Your task to perform on an android device: see sites visited before in the chrome app Image 0: 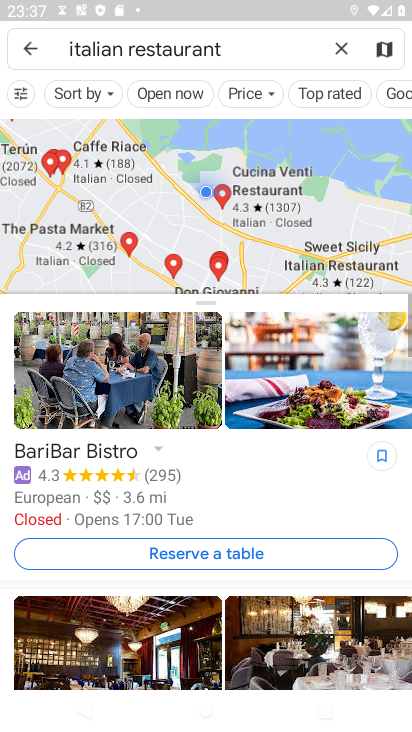
Step 0: press home button
Your task to perform on an android device: see sites visited before in the chrome app Image 1: 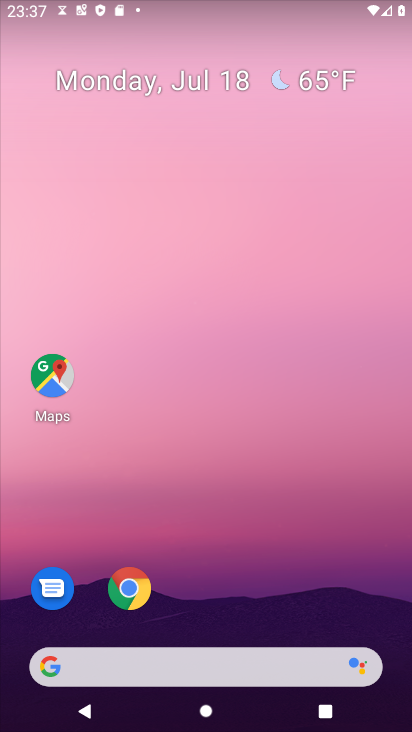
Step 1: drag from (314, 593) to (258, 77)
Your task to perform on an android device: see sites visited before in the chrome app Image 2: 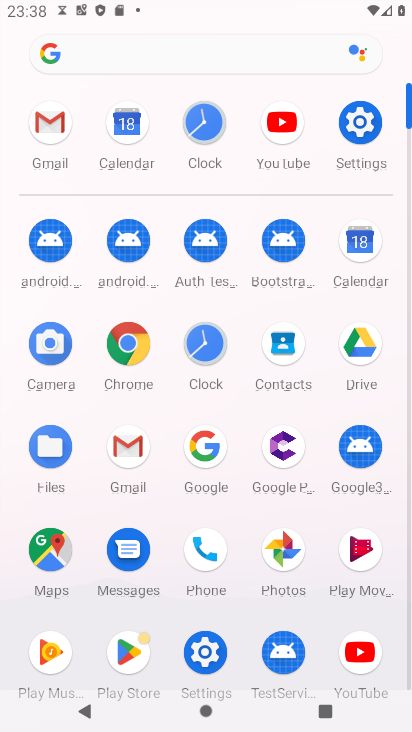
Step 2: click (128, 327)
Your task to perform on an android device: see sites visited before in the chrome app Image 3: 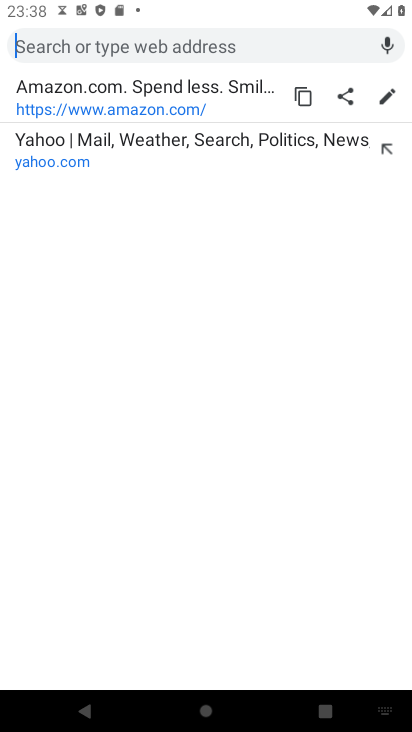
Step 3: task complete